Your task to perform on an android device: check android version Image 0: 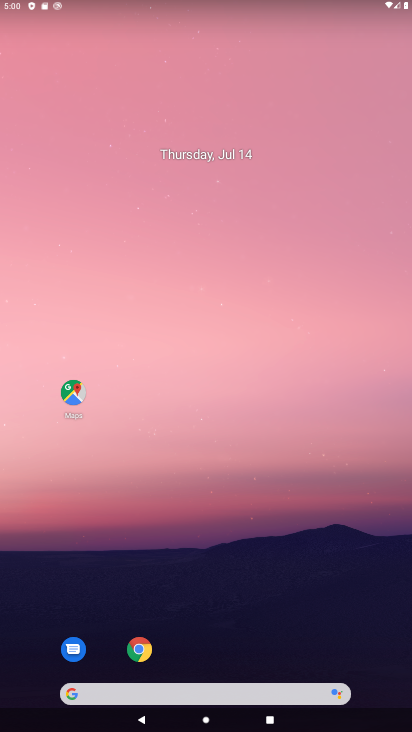
Step 0: drag from (220, 409) to (249, 51)
Your task to perform on an android device: check android version Image 1: 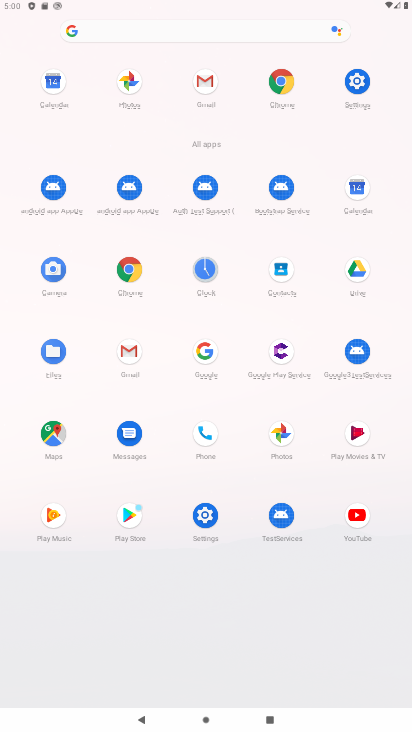
Step 1: click (358, 84)
Your task to perform on an android device: check android version Image 2: 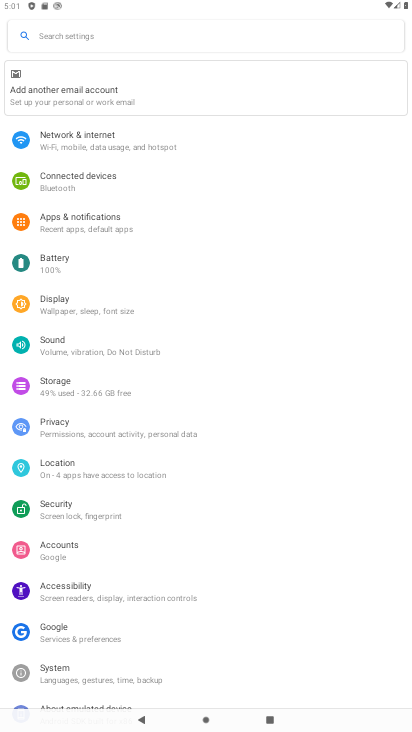
Step 2: drag from (119, 641) to (120, 70)
Your task to perform on an android device: check android version Image 3: 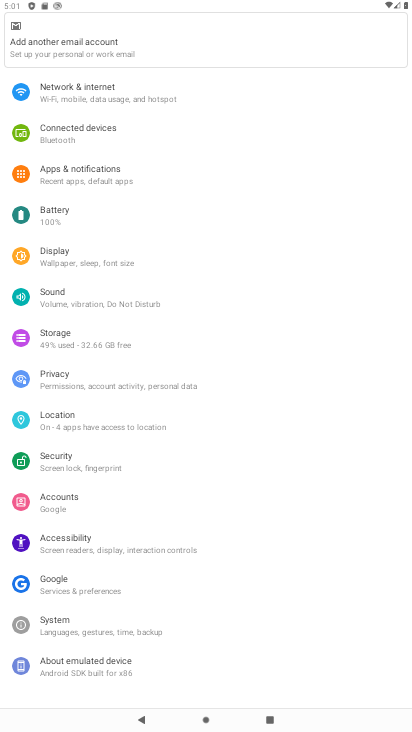
Step 3: click (83, 663)
Your task to perform on an android device: check android version Image 4: 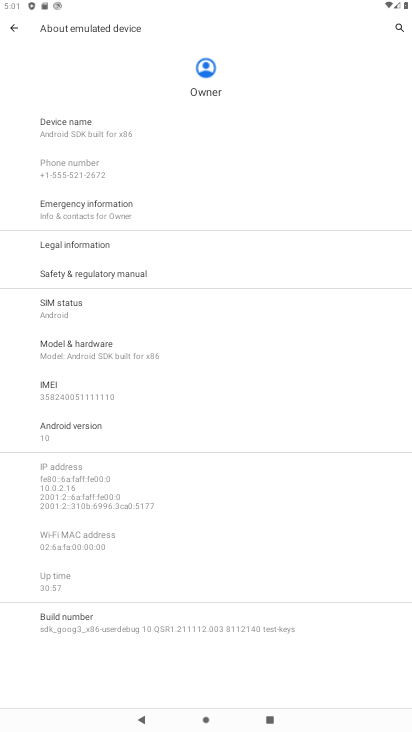
Step 4: click (95, 433)
Your task to perform on an android device: check android version Image 5: 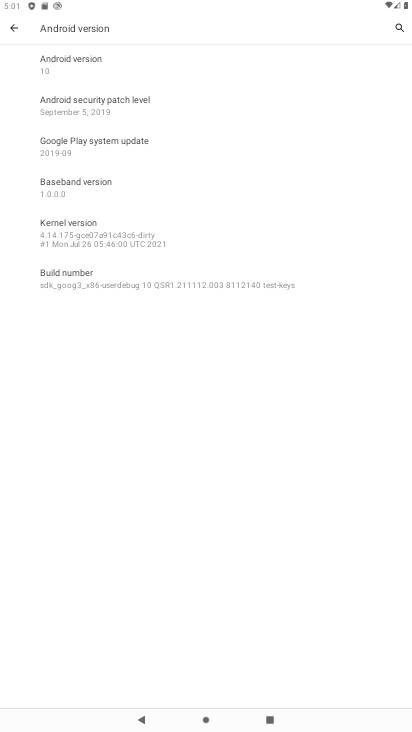
Step 5: task complete